Your task to perform on an android device: turn on the 24-hour format for clock Image 0: 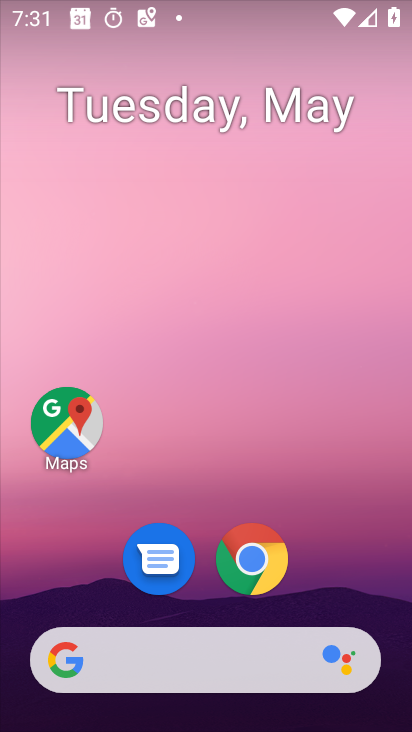
Step 0: drag from (402, 632) to (292, 93)
Your task to perform on an android device: turn on the 24-hour format for clock Image 1: 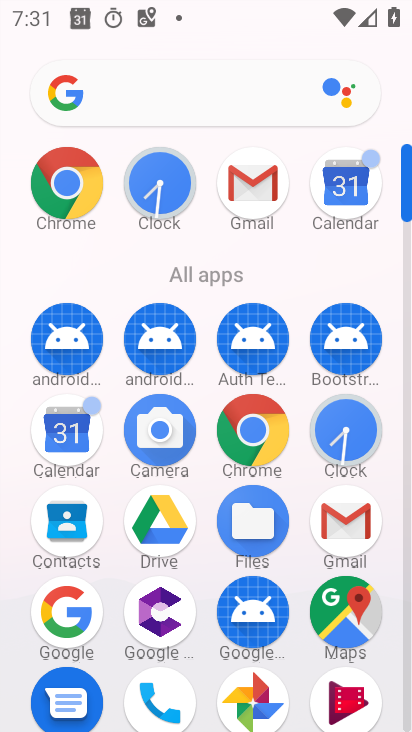
Step 1: click (343, 432)
Your task to perform on an android device: turn on the 24-hour format for clock Image 2: 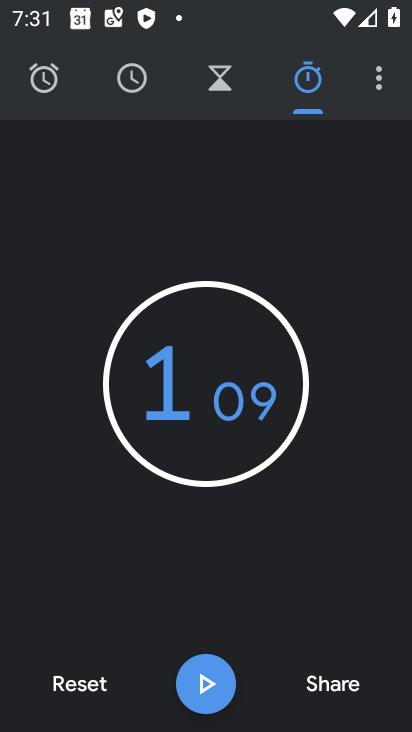
Step 2: click (386, 81)
Your task to perform on an android device: turn on the 24-hour format for clock Image 3: 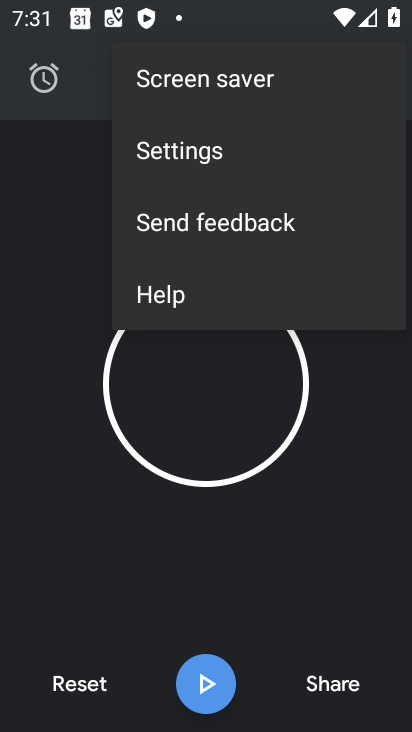
Step 3: click (247, 156)
Your task to perform on an android device: turn on the 24-hour format for clock Image 4: 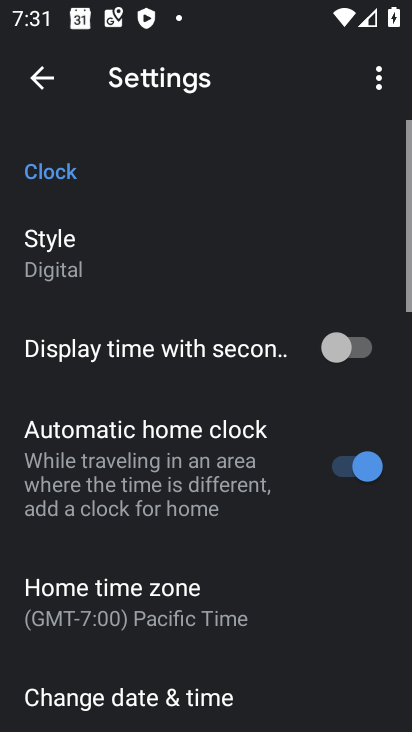
Step 4: click (220, 689)
Your task to perform on an android device: turn on the 24-hour format for clock Image 5: 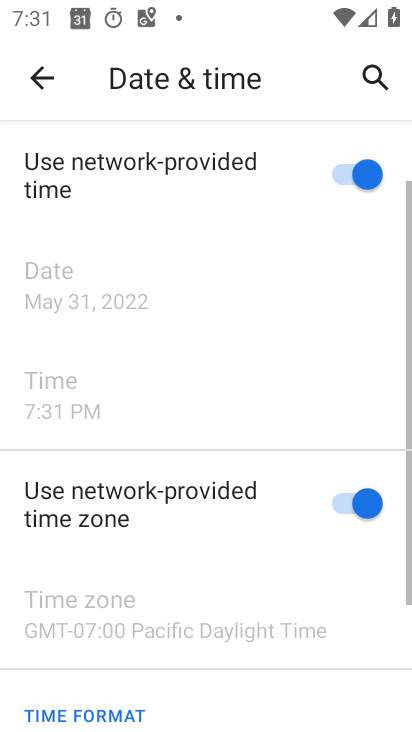
Step 5: task complete